Your task to perform on an android device: toggle wifi Image 0: 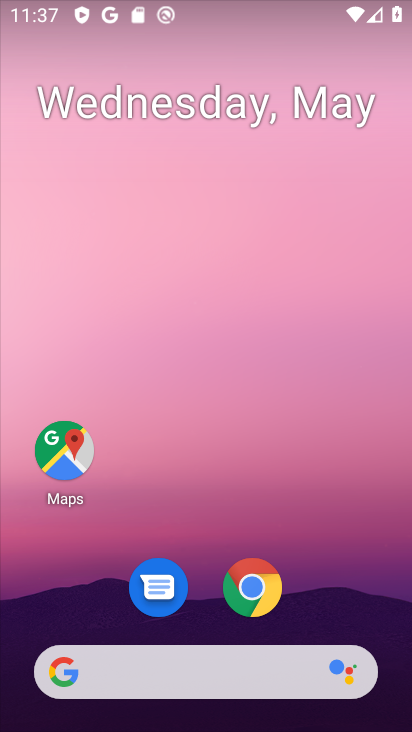
Step 0: drag from (340, 10) to (297, 531)
Your task to perform on an android device: toggle wifi Image 1: 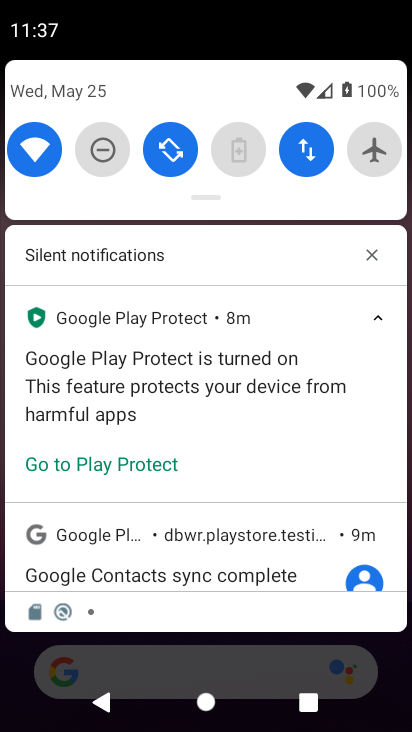
Step 1: click (45, 139)
Your task to perform on an android device: toggle wifi Image 2: 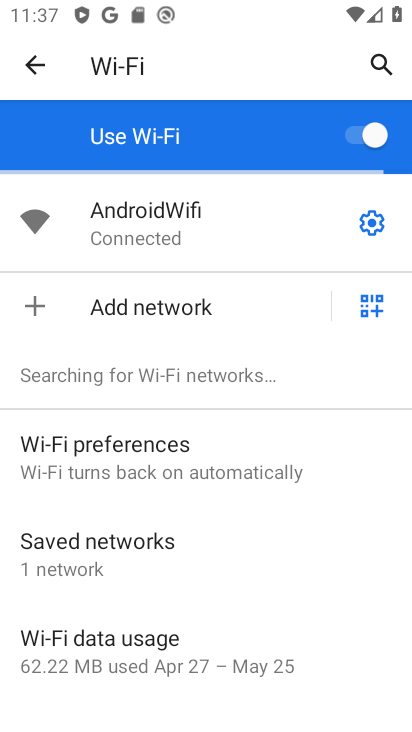
Step 2: click (362, 138)
Your task to perform on an android device: toggle wifi Image 3: 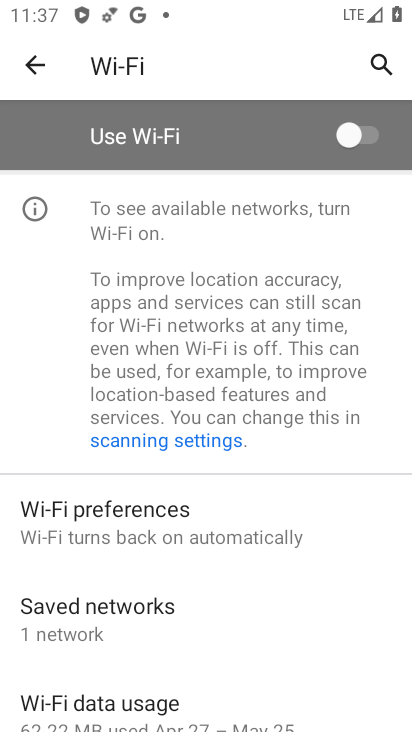
Step 3: task complete